Your task to perform on an android device: Open Google Chrome Image 0: 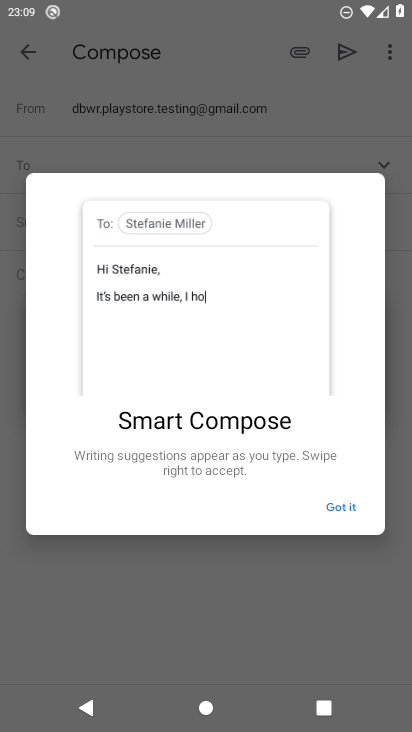
Step 0: press home button
Your task to perform on an android device: Open Google Chrome Image 1: 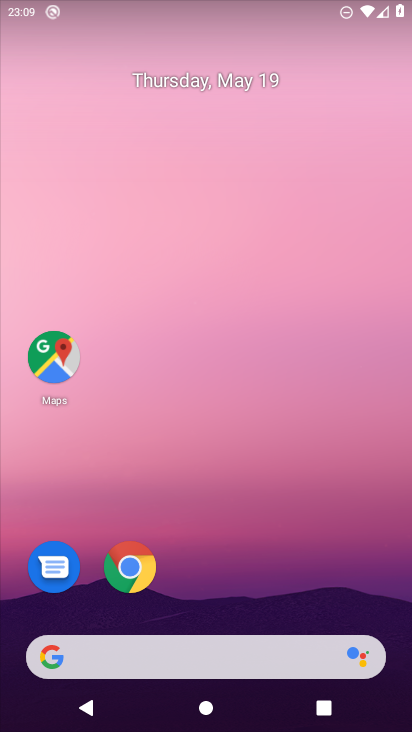
Step 1: click (136, 567)
Your task to perform on an android device: Open Google Chrome Image 2: 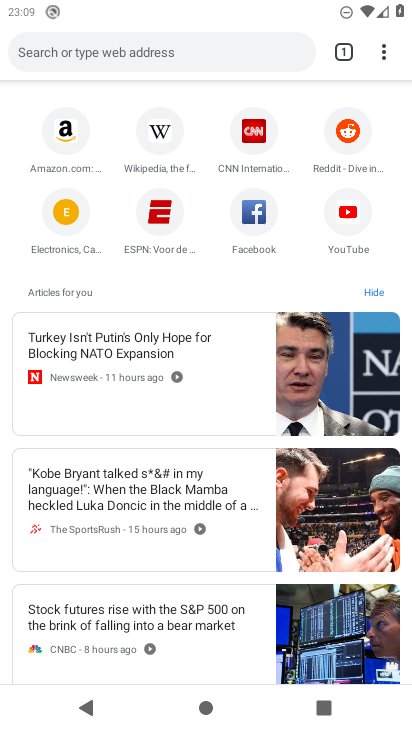
Step 2: task complete